Your task to perform on an android device: Open battery settings Image 0: 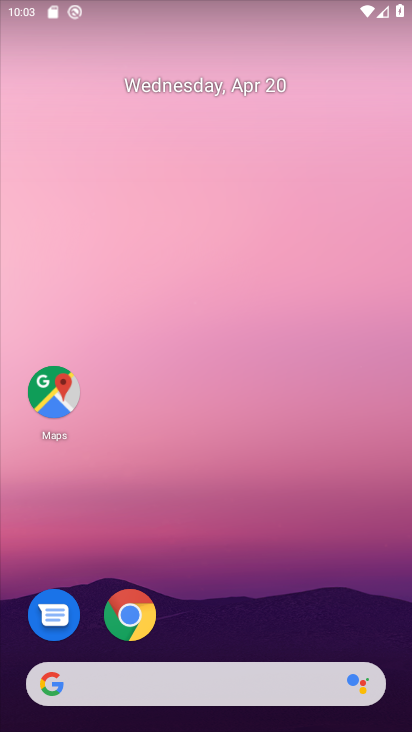
Step 0: drag from (298, 596) to (281, 172)
Your task to perform on an android device: Open battery settings Image 1: 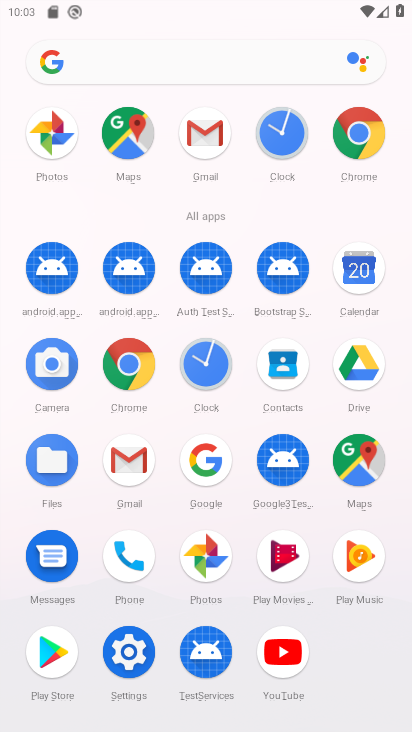
Step 1: click (119, 657)
Your task to perform on an android device: Open battery settings Image 2: 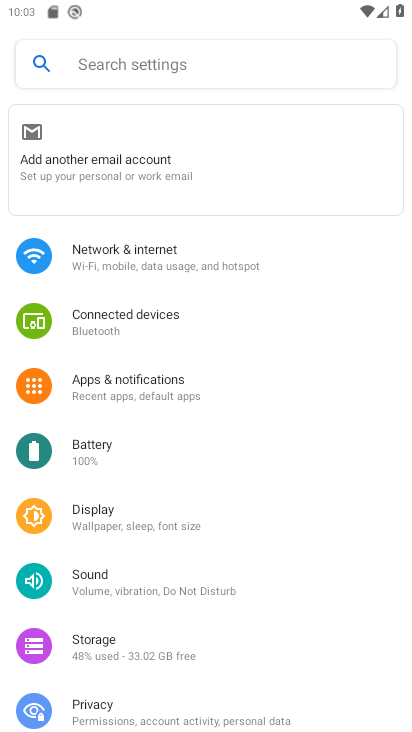
Step 2: click (105, 454)
Your task to perform on an android device: Open battery settings Image 3: 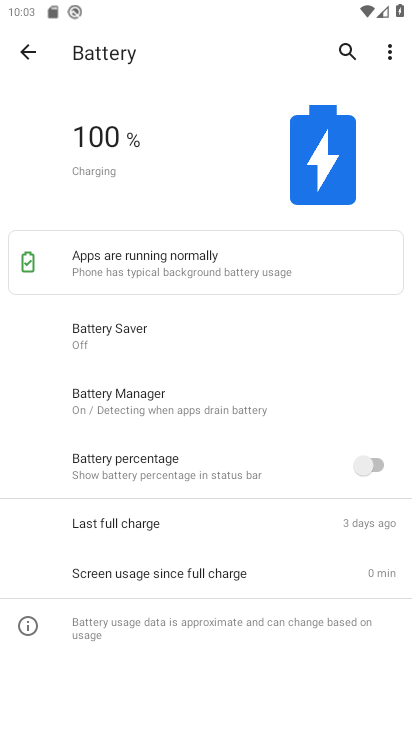
Step 3: click (389, 57)
Your task to perform on an android device: Open battery settings Image 4: 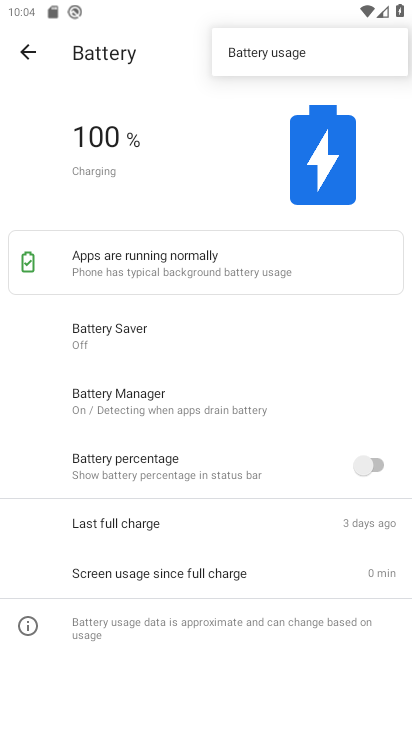
Step 4: click (279, 51)
Your task to perform on an android device: Open battery settings Image 5: 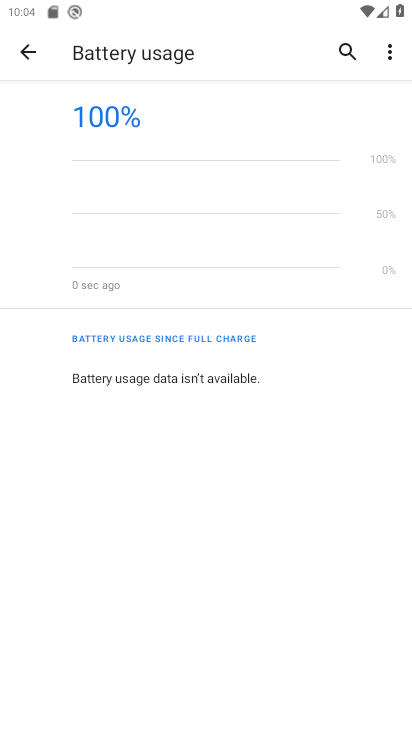
Step 5: task complete